Your task to perform on an android device: Show me the alarms in the clock app Image 0: 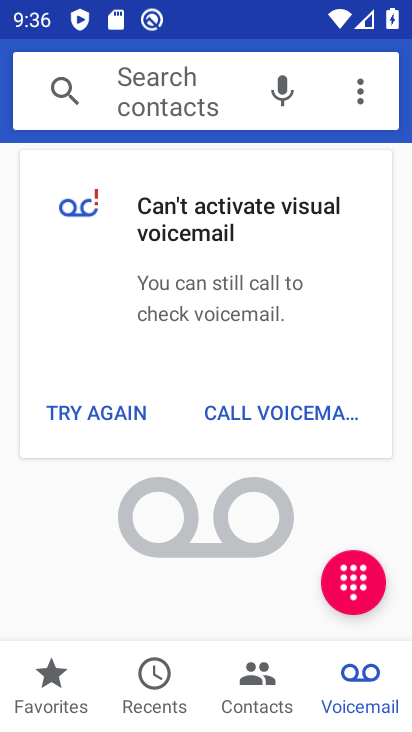
Step 0: press home button
Your task to perform on an android device: Show me the alarms in the clock app Image 1: 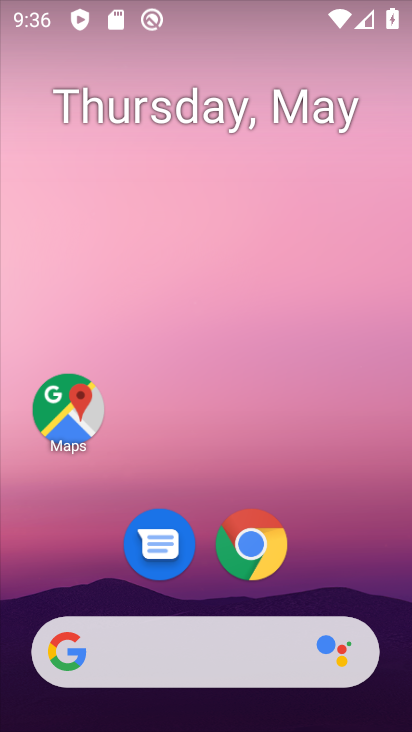
Step 1: drag from (201, 586) to (275, 0)
Your task to perform on an android device: Show me the alarms in the clock app Image 2: 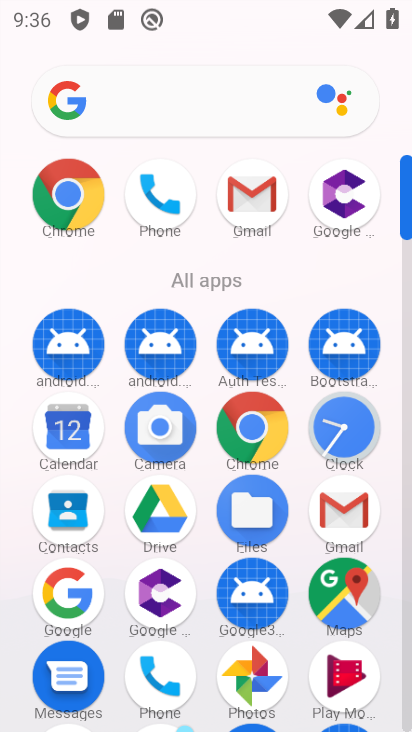
Step 2: click (337, 422)
Your task to perform on an android device: Show me the alarms in the clock app Image 3: 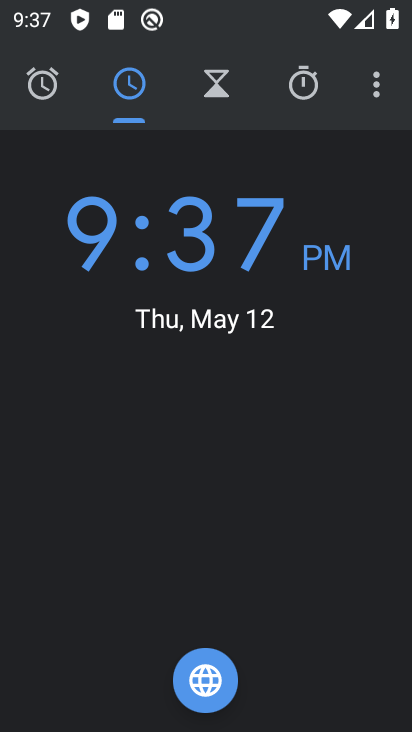
Step 3: click (46, 82)
Your task to perform on an android device: Show me the alarms in the clock app Image 4: 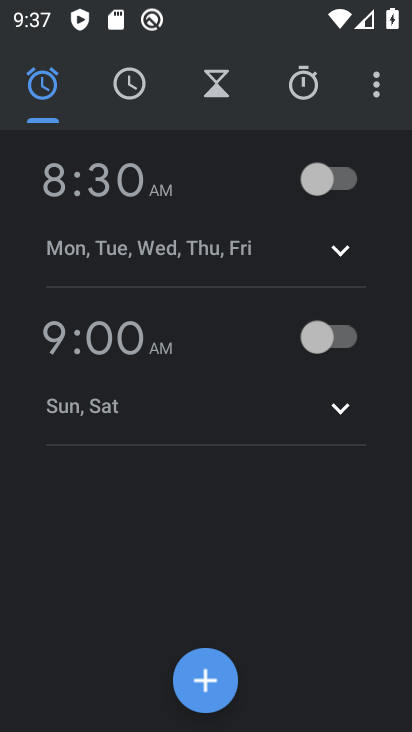
Step 4: task complete